Your task to perform on an android device: What is the news today? Image 0: 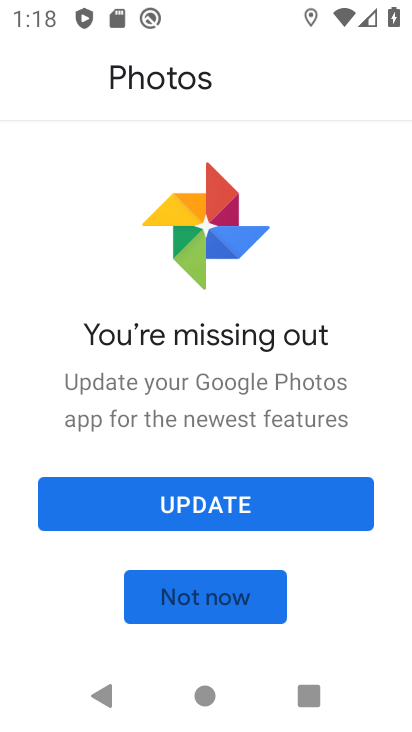
Step 0: press home button
Your task to perform on an android device: What is the news today? Image 1: 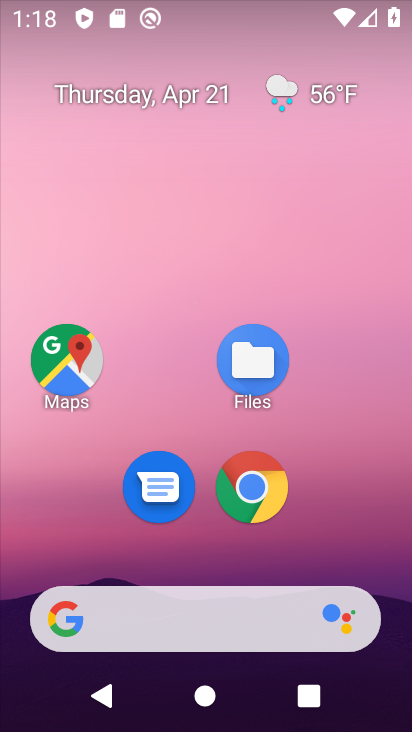
Step 1: drag from (366, 512) to (375, 144)
Your task to perform on an android device: What is the news today? Image 2: 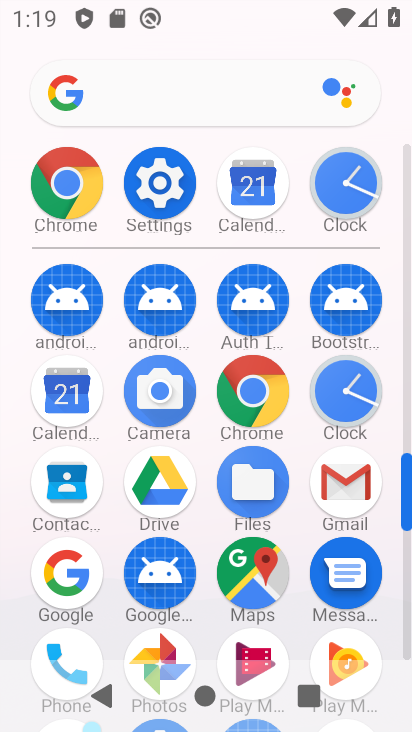
Step 2: drag from (211, 471) to (199, 315)
Your task to perform on an android device: What is the news today? Image 3: 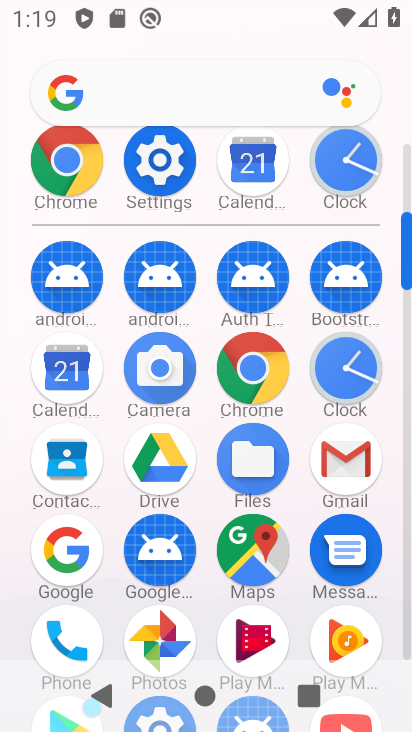
Step 3: click (251, 364)
Your task to perform on an android device: What is the news today? Image 4: 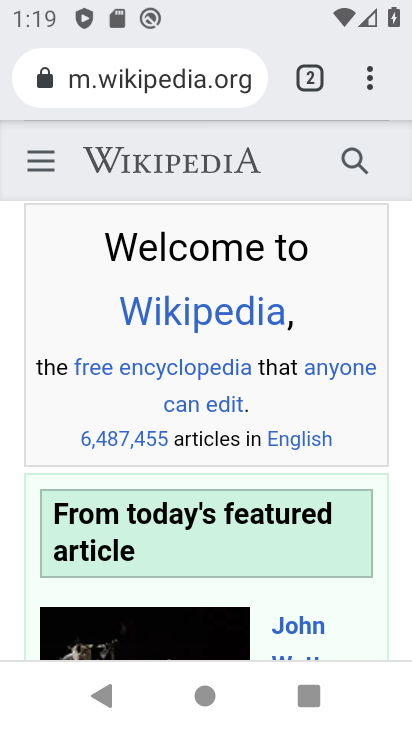
Step 4: click (210, 84)
Your task to perform on an android device: What is the news today? Image 5: 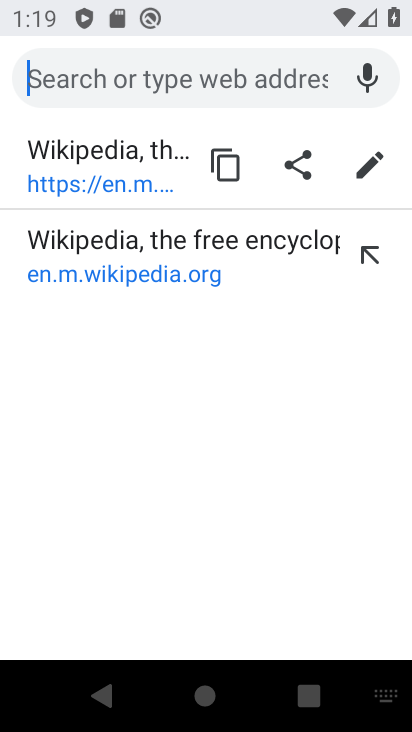
Step 5: type "news today"
Your task to perform on an android device: What is the news today? Image 6: 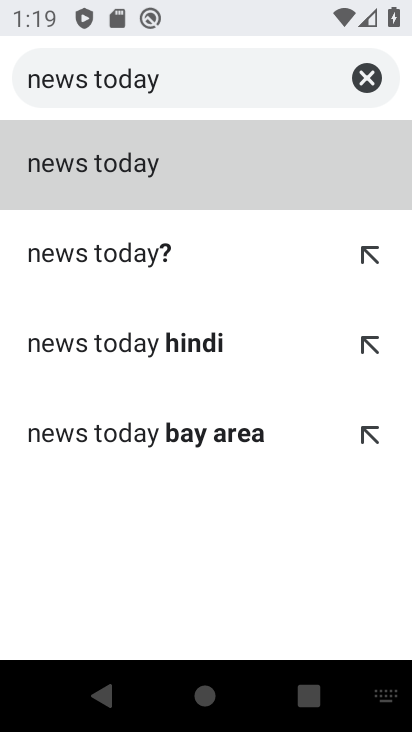
Step 6: click (80, 145)
Your task to perform on an android device: What is the news today? Image 7: 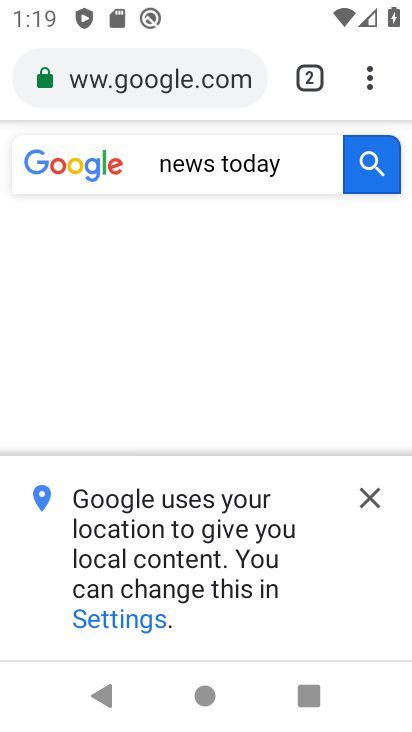
Step 7: click (365, 488)
Your task to perform on an android device: What is the news today? Image 8: 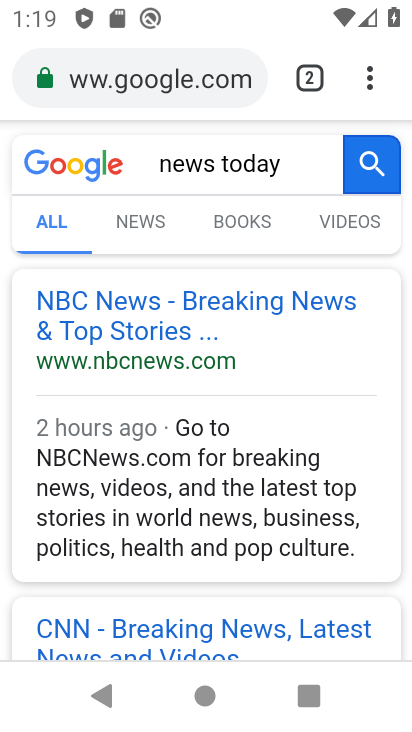
Step 8: click (195, 325)
Your task to perform on an android device: What is the news today? Image 9: 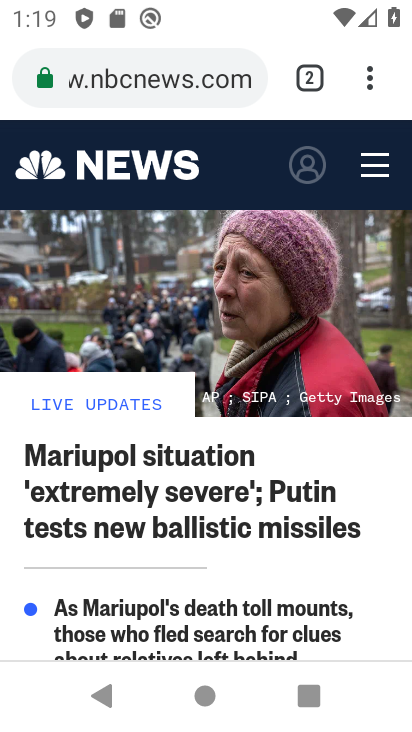
Step 9: task complete